Your task to perform on an android device: turn notification dots off Image 0: 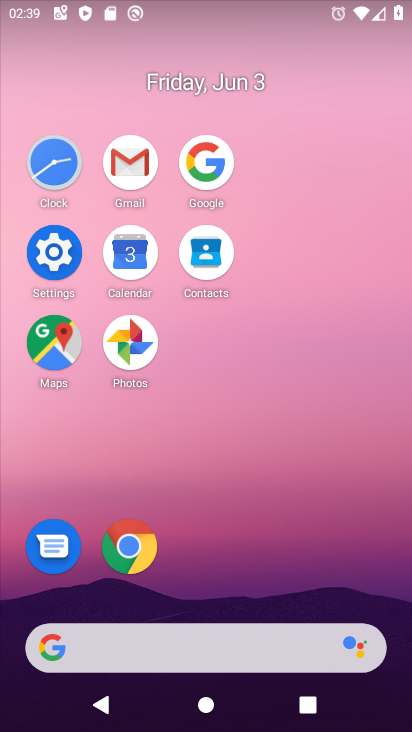
Step 0: click (59, 257)
Your task to perform on an android device: turn notification dots off Image 1: 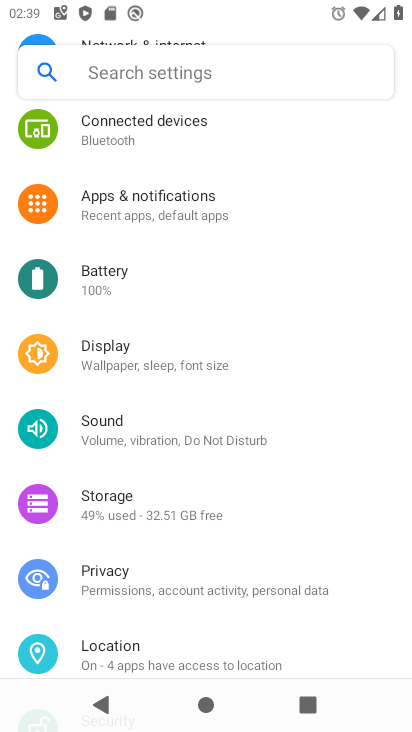
Step 1: click (203, 216)
Your task to perform on an android device: turn notification dots off Image 2: 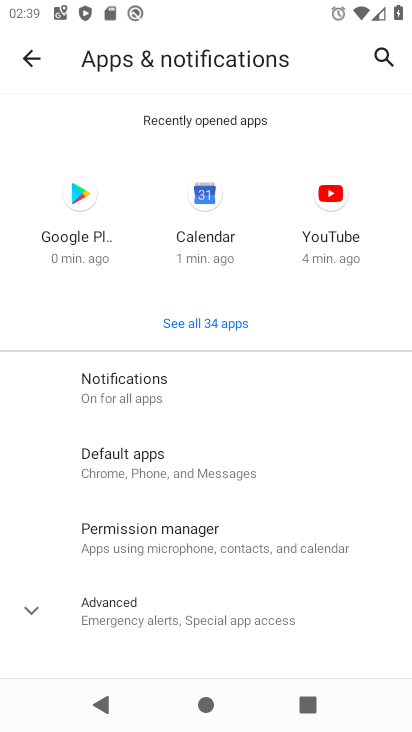
Step 2: drag from (226, 546) to (272, 271)
Your task to perform on an android device: turn notification dots off Image 3: 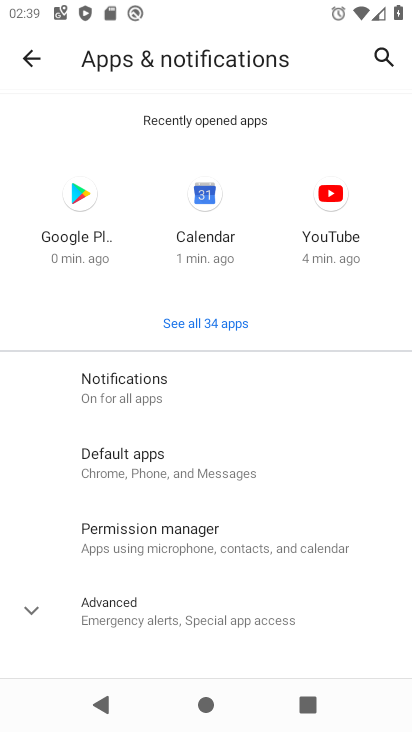
Step 3: click (185, 608)
Your task to perform on an android device: turn notification dots off Image 4: 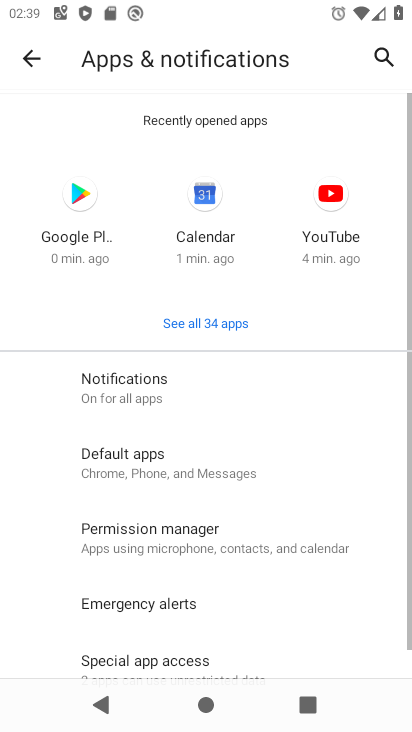
Step 4: click (185, 396)
Your task to perform on an android device: turn notification dots off Image 5: 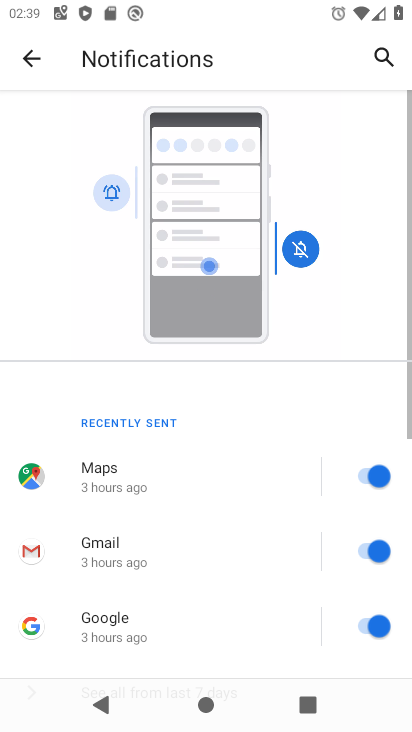
Step 5: drag from (218, 609) to (282, 281)
Your task to perform on an android device: turn notification dots off Image 6: 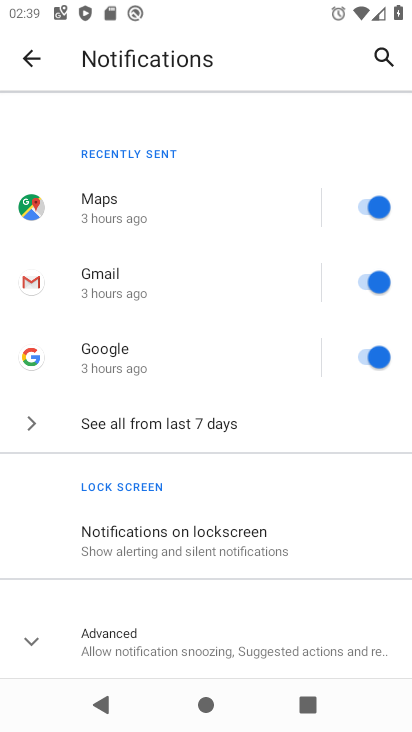
Step 6: click (218, 619)
Your task to perform on an android device: turn notification dots off Image 7: 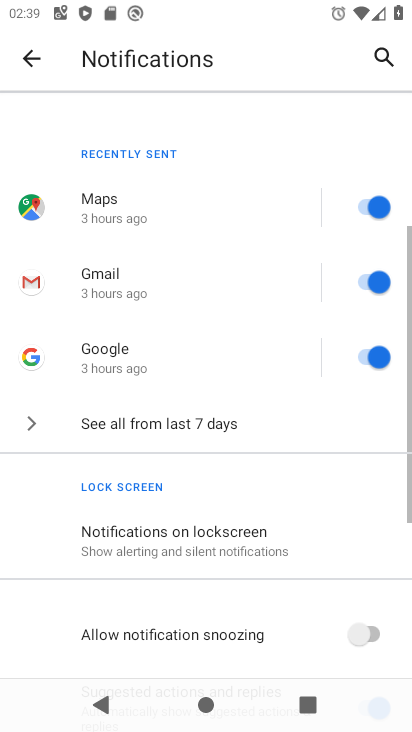
Step 7: task complete